Your task to perform on an android device: Go to location settings Image 0: 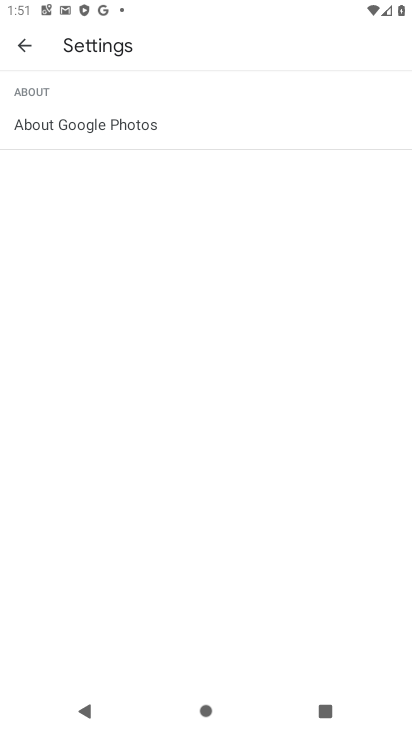
Step 0: press back button
Your task to perform on an android device: Go to location settings Image 1: 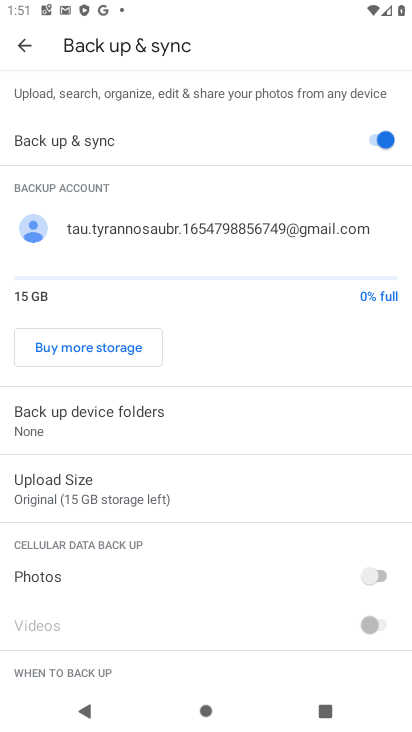
Step 1: press back button
Your task to perform on an android device: Go to location settings Image 2: 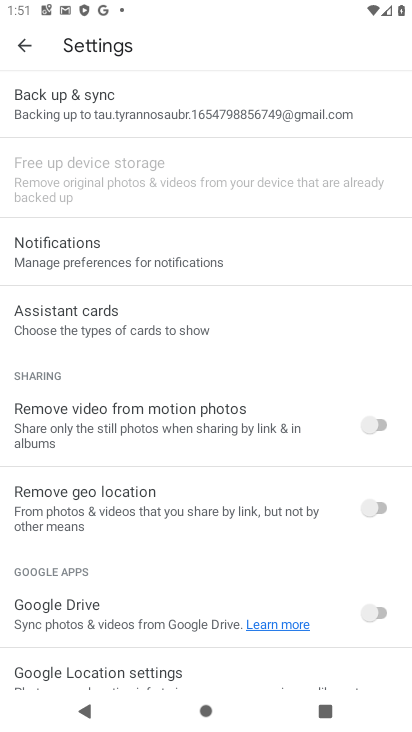
Step 2: press back button
Your task to perform on an android device: Go to location settings Image 3: 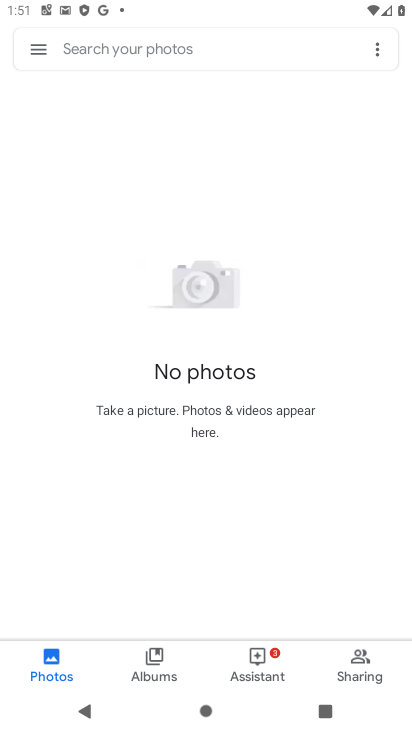
Step 3: press back button
Your task to perform on an android device: Go to location settings Image 4: 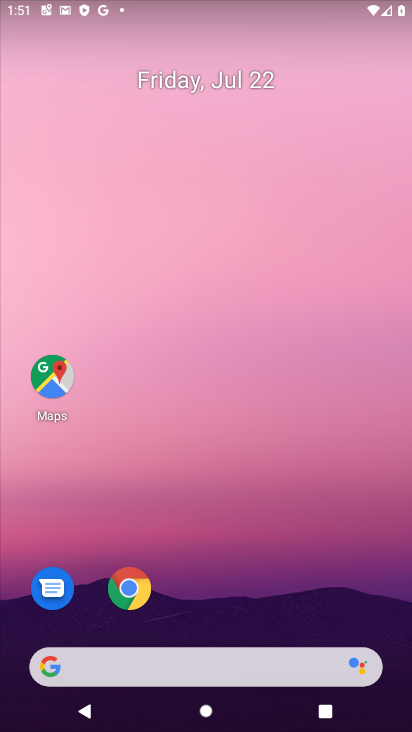
Step 4: drag from (216, 622) to (320, 19)
Your task to perform on an android device: Go to location settings Image 5: 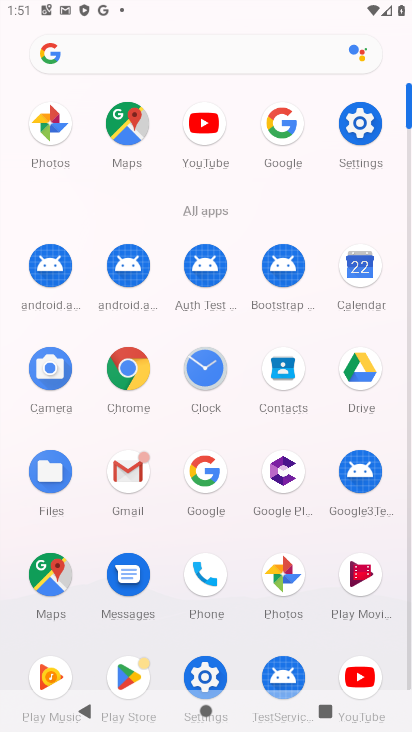
Step 5: click (352, 138)
Your task to perform on an android device: Go to location settings Image 6: 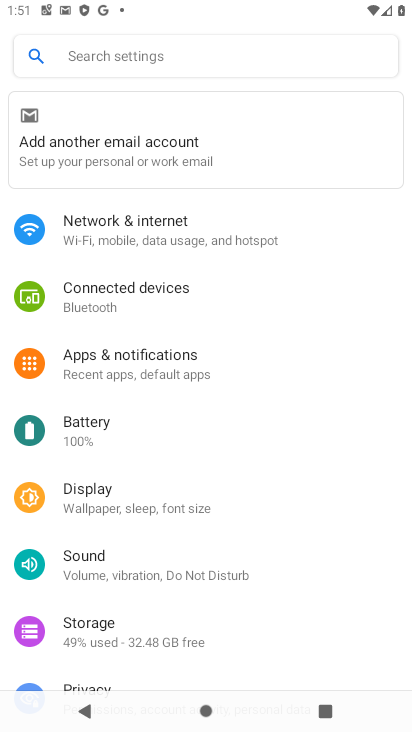
Step 6: drag from (129, 586) to (218, 275)
Your task to perform on an android device: Go to location settings Image 7: 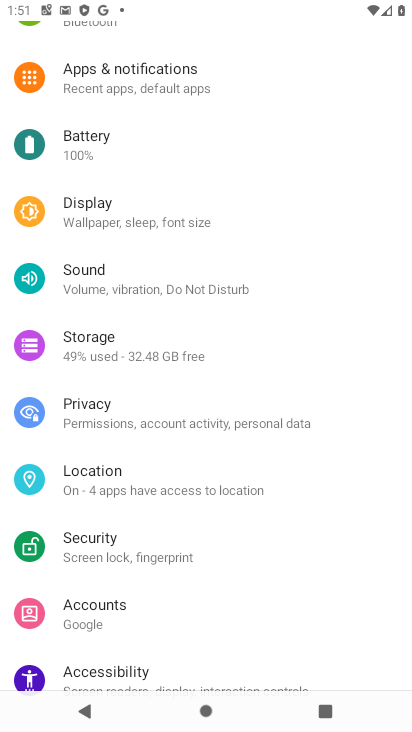
Step 7: click (113, 476)
Your task to perform on an android device: Go to location settings Image 8: 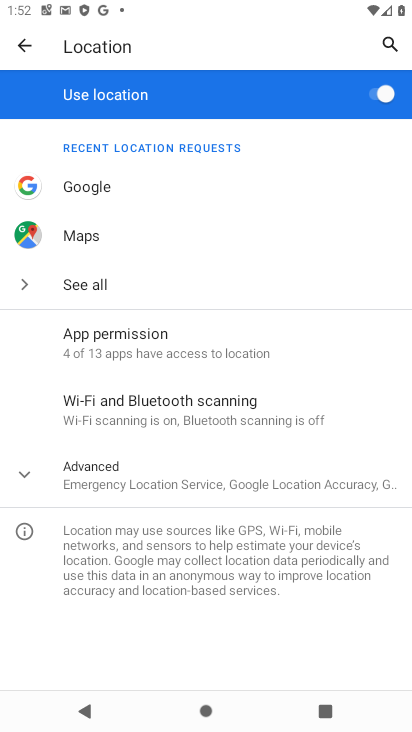
Step 8: task complete